Your task to perform on an android device: Go to sound settings Image 0: 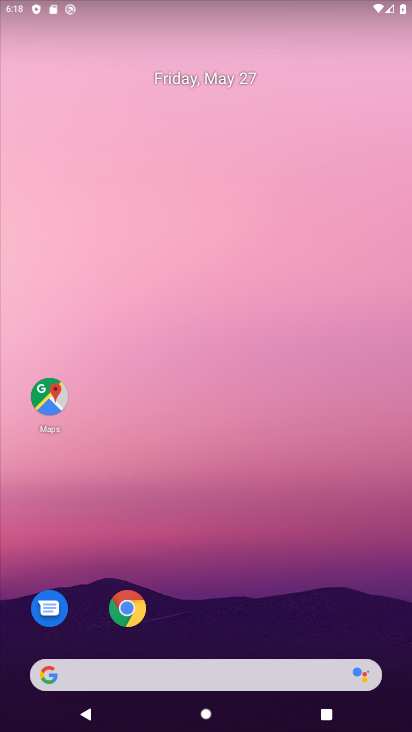
Step 0: drag from (219, 625) to (238, 177)
Your task to perform on an android device: Go to sound settings Image 1: 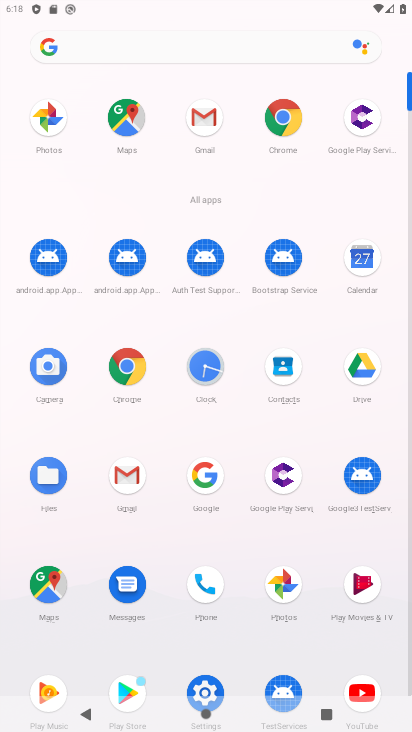
Step 1: click (207, 678)
Your task to perform on an android device: Go to sound settings Image 2: 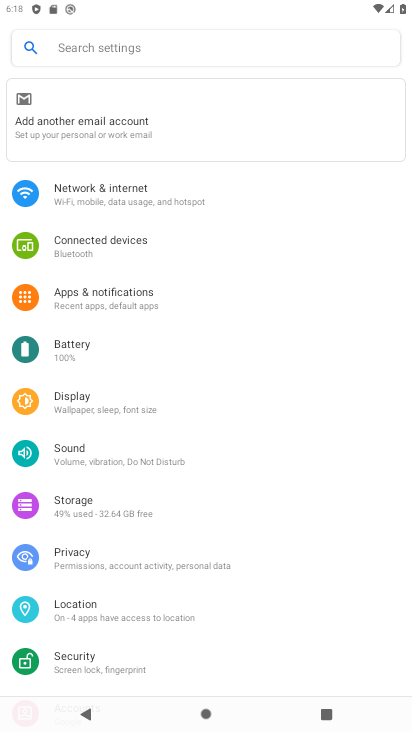
Step 2: click (102, 444)
Your task to perform on an android device: Go to sound settings Image 3: 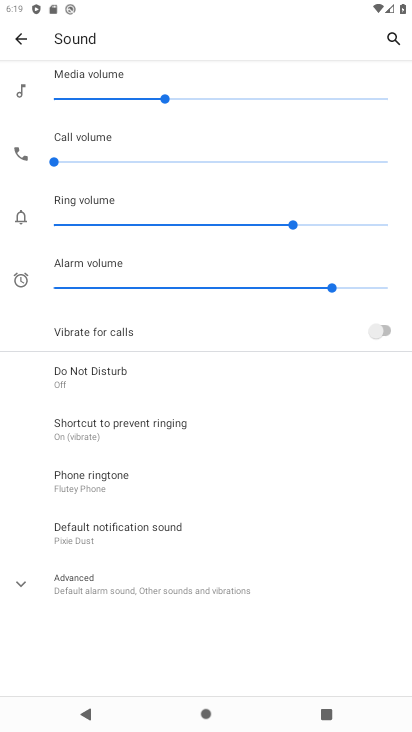
Step 3: click (16, 582)
Your task to perform on an android device: Go to sound settings Image 4: 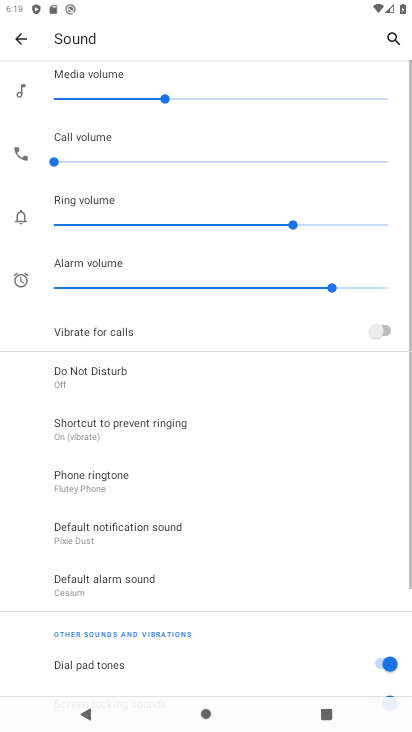
Step 4: task complete